Your task to perform on an android device: change keyboard looks Image 0: 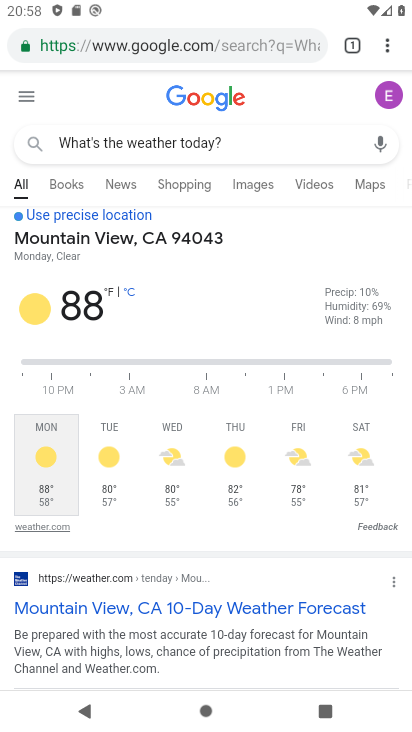
Step 0: press home button
Your task to perform on an android device: change keyboard looks Image 1: 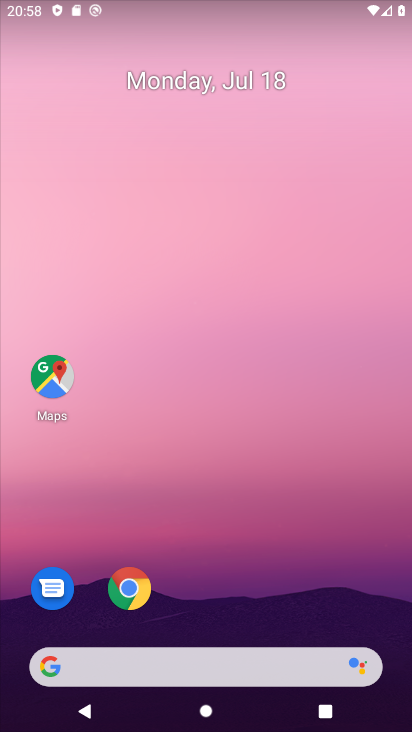
Step 1: drag from (282, 538) to (287, 41)
Your task to perform on an android device: change keyboard looks Image 2: 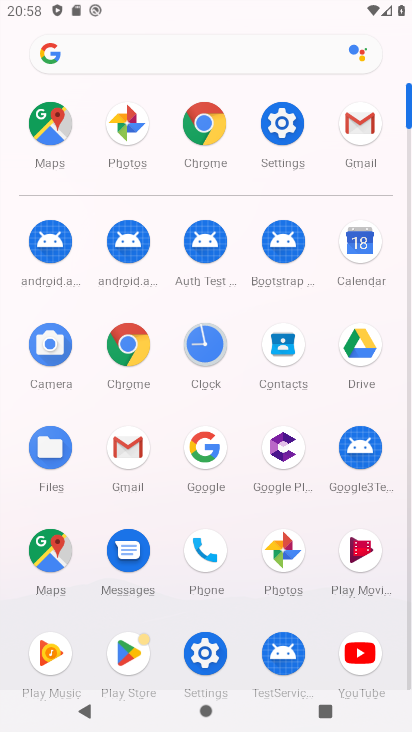
Step 2: click (286, 102)
Your task to perform on an android device: change keyboard looks Image 3: 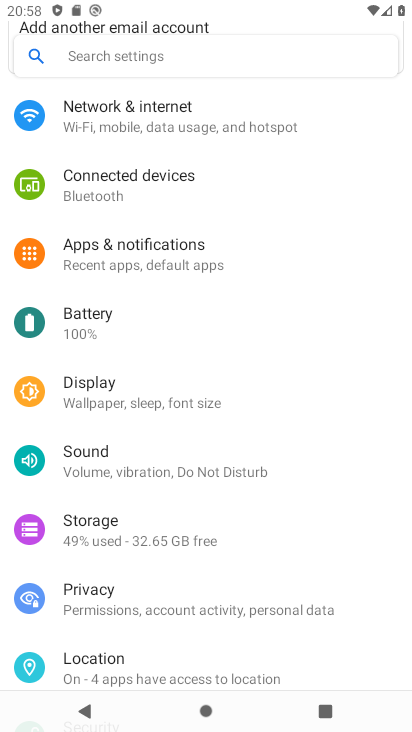
Step 3: drag from (220, 514) to (218, 73)
Your task to perform on an android device: change keyboard looks Image 4: 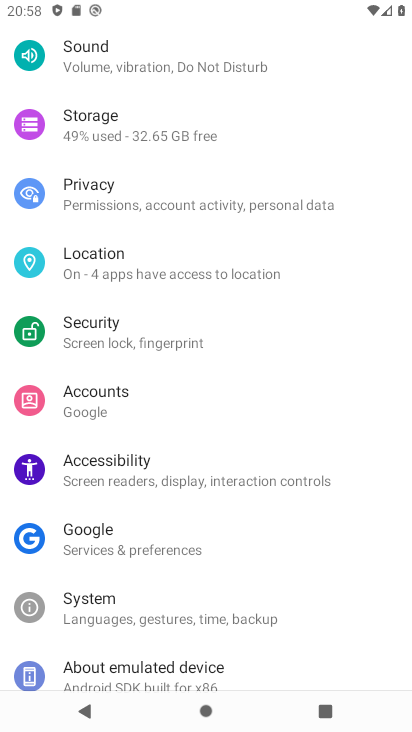
Step 4: drag from (58, 585) to (52, 0)
Your task to perform on an android device: change keyboard looks Image 5: 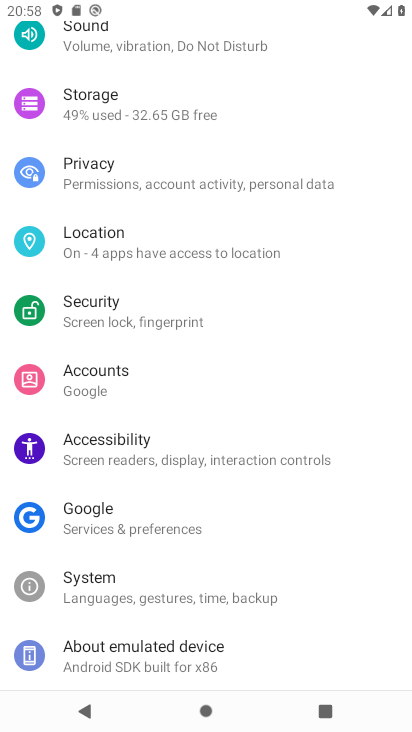
Step 5: click (24, 658)
Your task to perform on an android device: change keyboard looks Image 6: 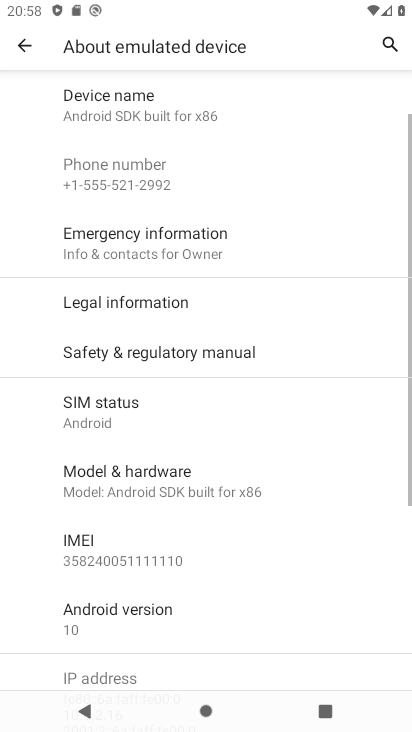
Step 6: click (48, 47)
Your task to perform on an android device: change keyboard looks Image 7: 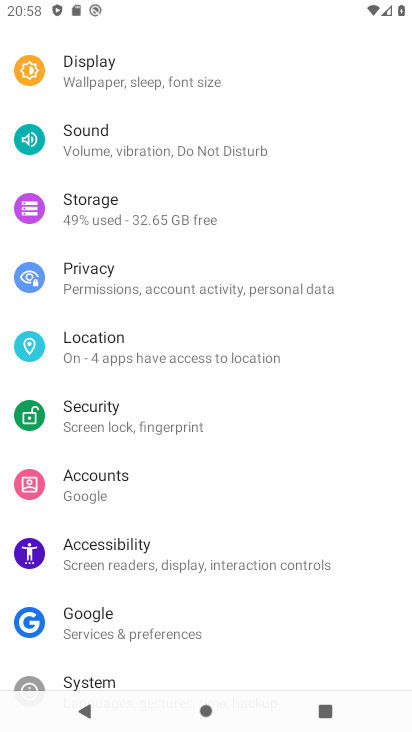
Step 7: click (86, 667)
Your task to perform on an android device: change keyboard looks Image 8: 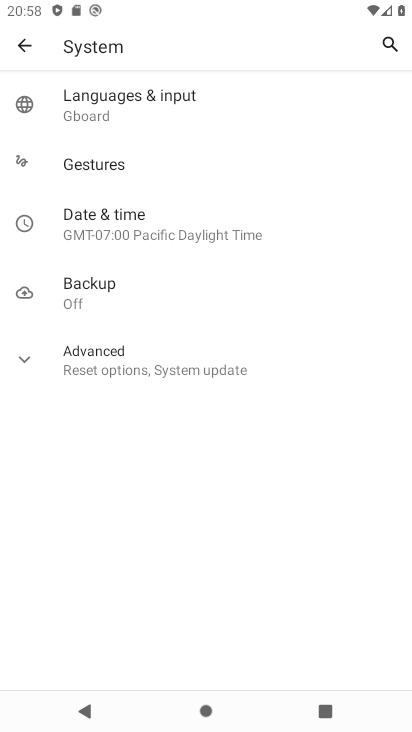
Step 8: click (94, 124)
Your task to perform on an android device: change keyboard looks Image 9: 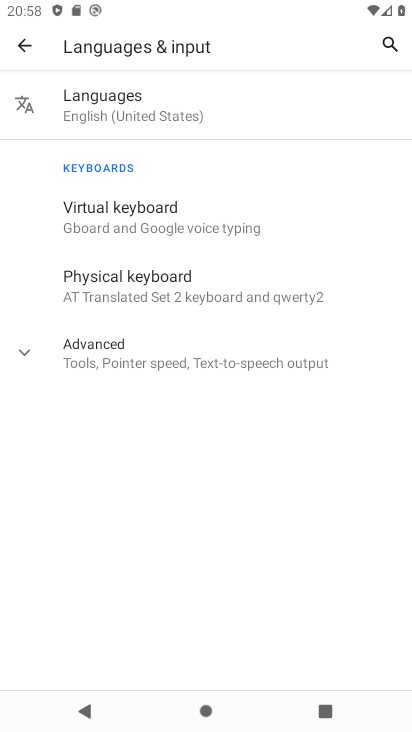
Step 9: click (114, 240)
Your task to perform on an android device: change keyboard looks Image 10: 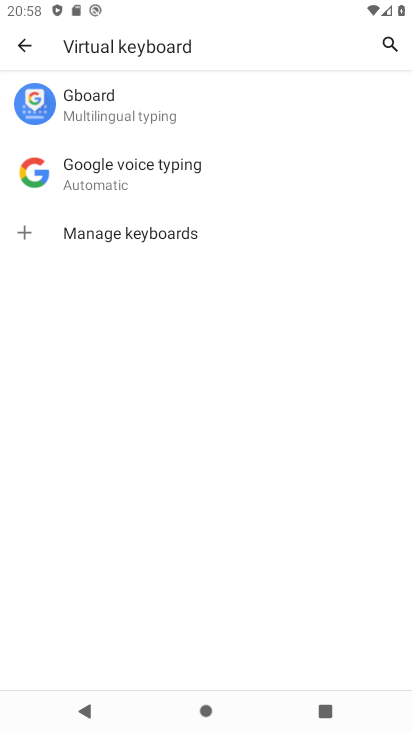
Step 10: click (158, 117)
Your task to perform on an android device: change keyboard looks Image 11: 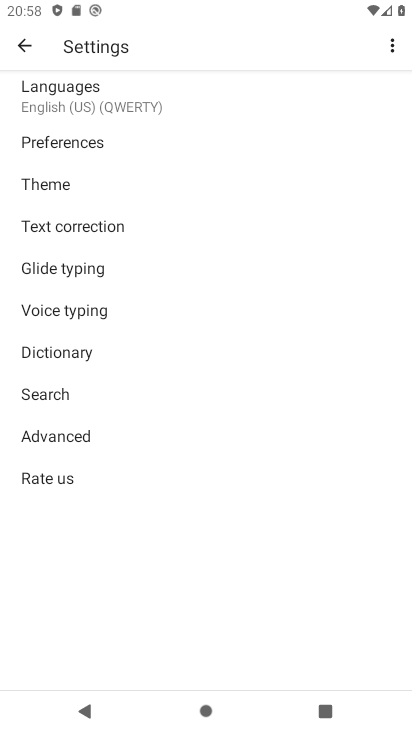
Step 11: click (148, 186)
Your task to perform on an android device: change keyboard looks Image 12: 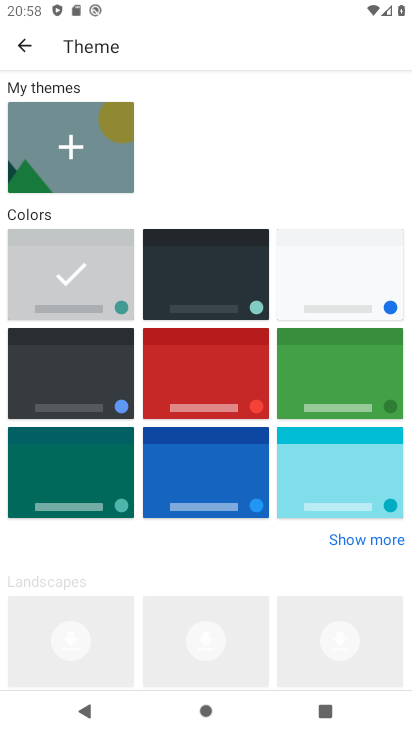
Step 12: click (250, 494)
Your task to perform on an android device: change keyboard looks Image 13: 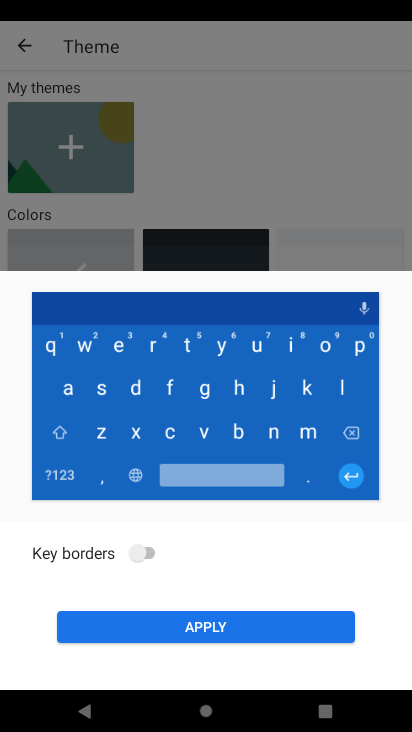
Step 13: click (203, 624)
Your task to perform on an android device: change keyboard looks Image 14: 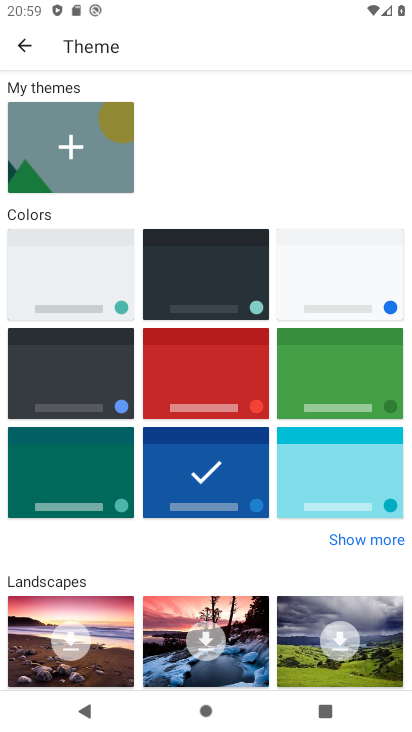
Step 14: task complete